Your task to perform on an android device: Open calendar and show me the first week of next month Image 0: 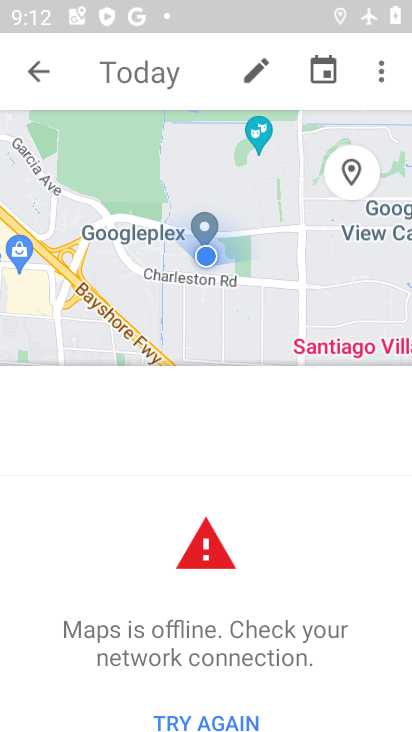
Step 0: press home button
Your task to perform on an android device: Open calendar and show me the first week of next month Image 1: 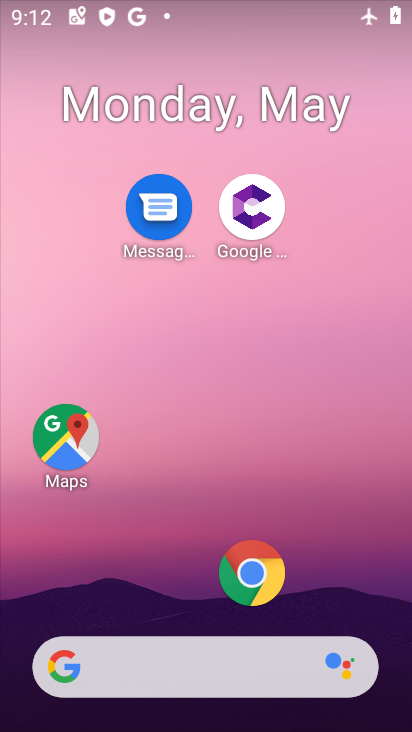
Step 1: drag from (211, 649) to (351, 169)
Your task to perform on an android device: Open calendar and show me the first week of next month Image 2: 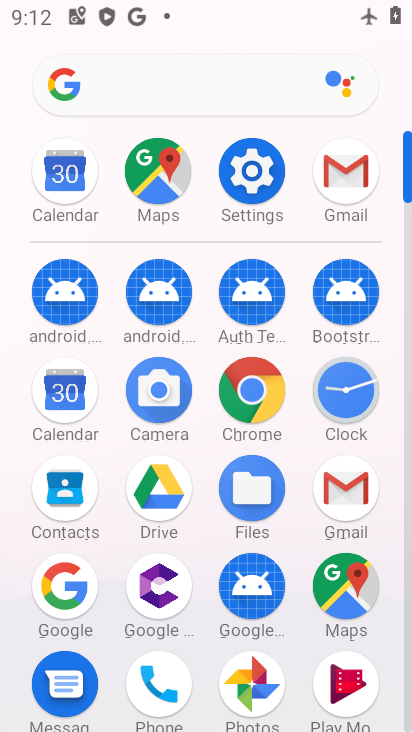
Step 2: click (63, 409)
Your task to perform on an android device: Open calendar and show me the first week of next month Image 3: 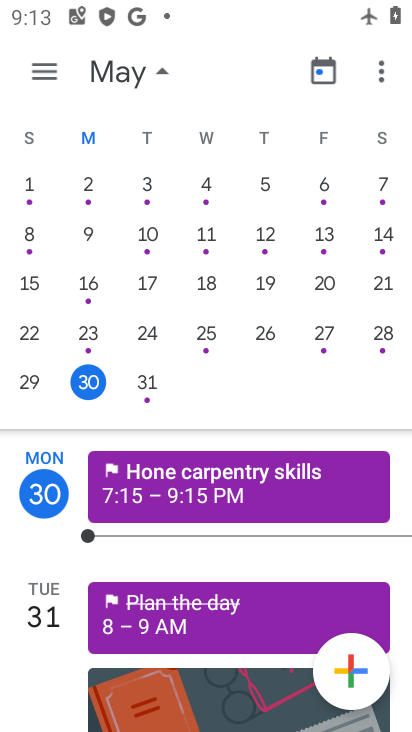
Step 3: drag from (330, 277) to (0, 412)
Your task to perform on an android device: Open calendar and show me the first week of next month Image 4: 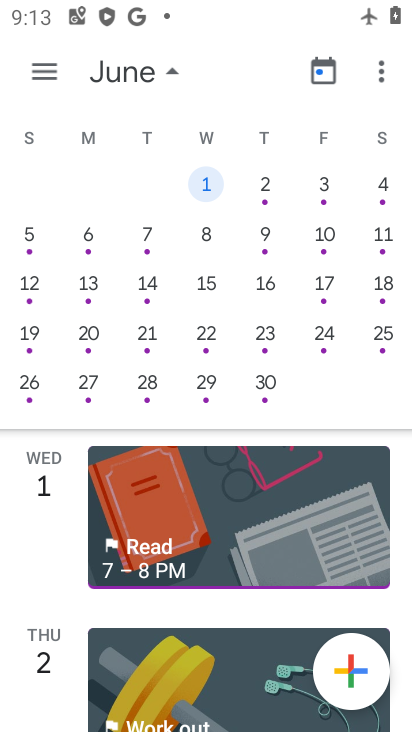
Step 4: click (212, 185)
Your task to perform on an android device: Open calendar and show me the first week of next month Image 5: 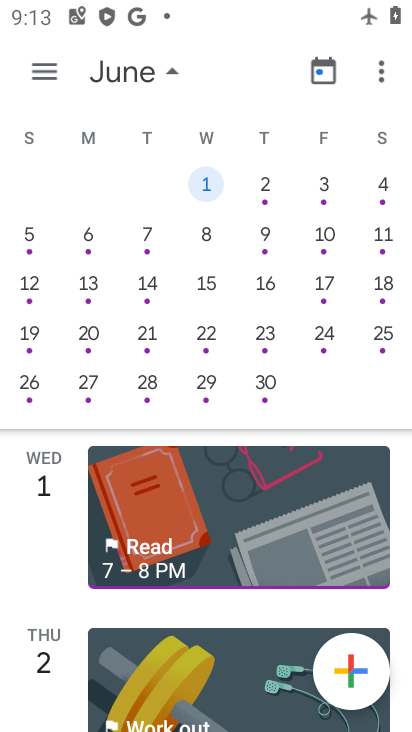
Step 5: task complete